Your task to perform on an android device: show emergency info Image 0: 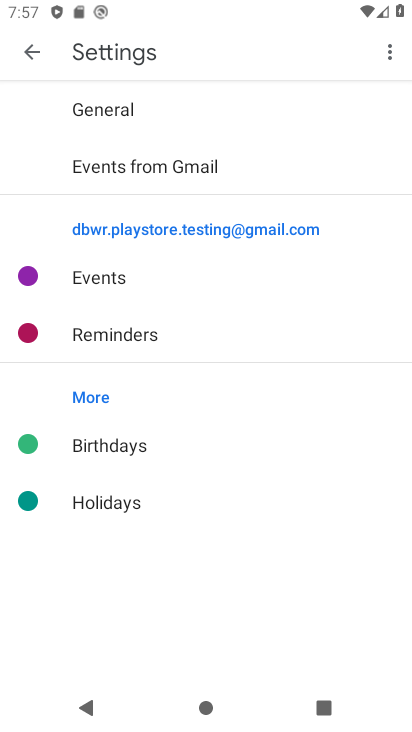
Step 0: press home button
Your task to perform on an android device: show emergency info Image 1: 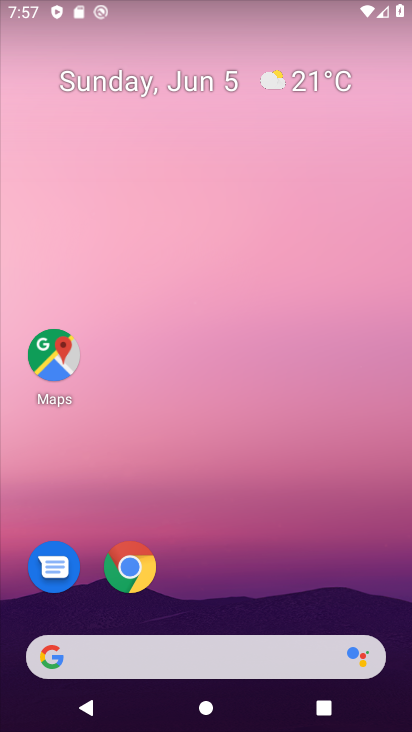
Step 1: drag from (197, 637) to (271, 137)
Your task to perform on an android device: show emergency info Image 2: 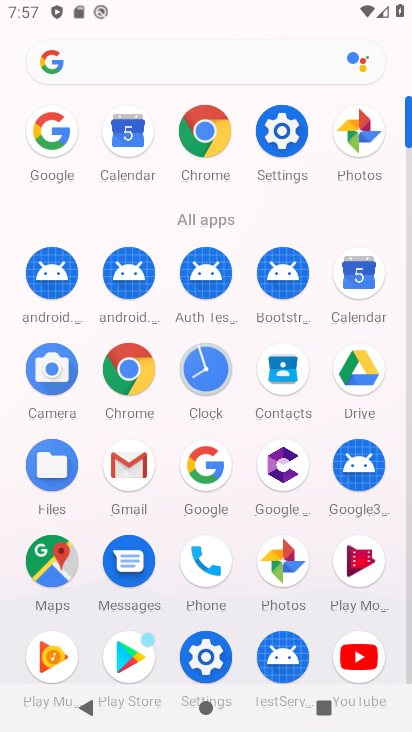
Step 2: click (279, 129)
Your task to perform on an android device: show emergency info Image 3: 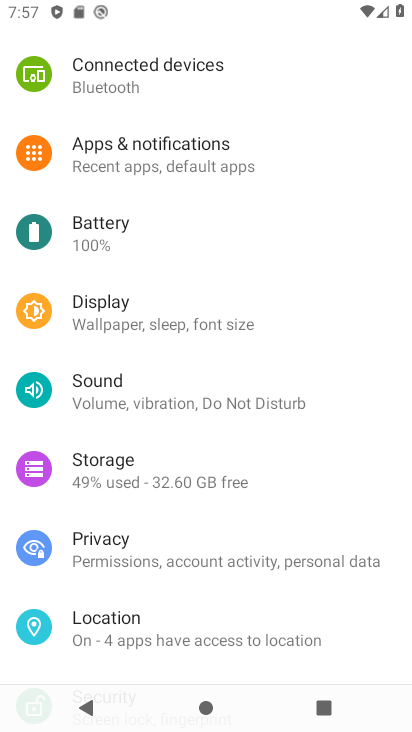
Step 3: drag from (123, 625) to (203, 43)
Your task to perform on an android device: show emergency info Image 4: 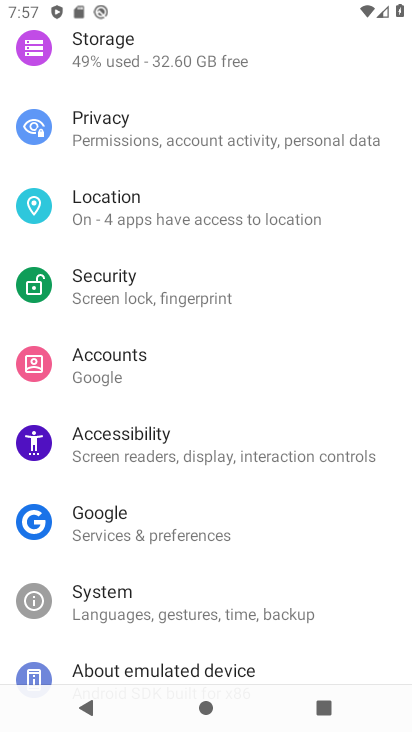
Step 4: drag from (44, 597) to (194, 98)
Your task to perform on an android device: show emergency info Image 5: 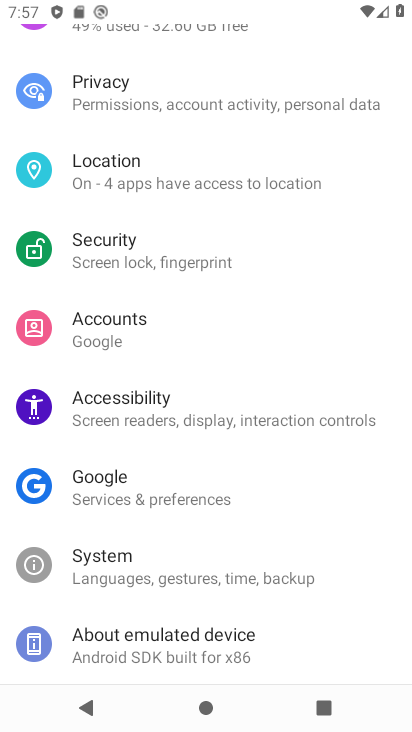
Step 5: click (132, 652)
Your task to perform on an android device: show emergency info Image 6: 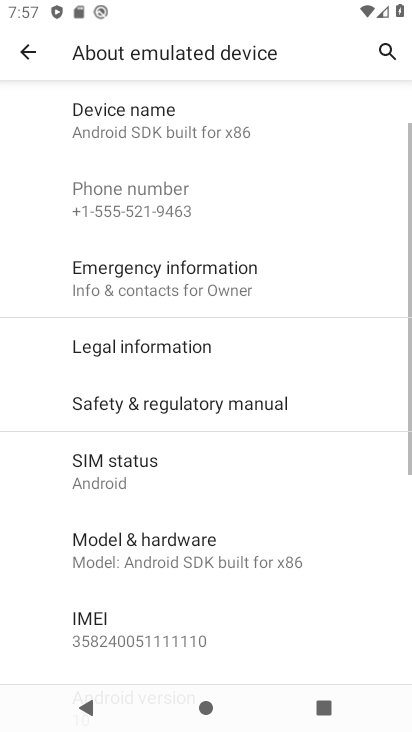
Step 6: click (183, 274)
Your task to perform on an android device: show emergency info Image 7: 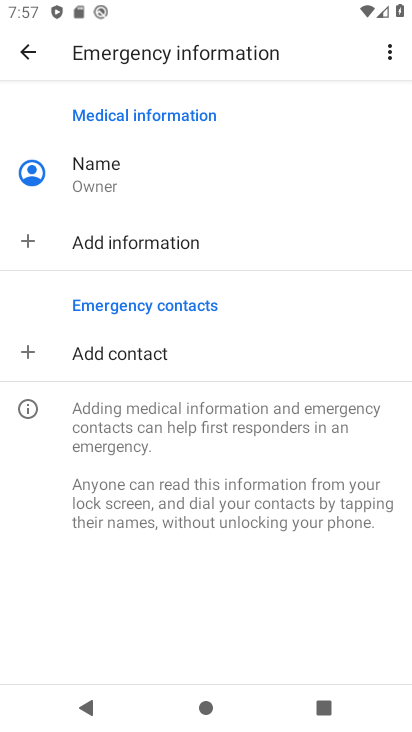
Step 7: task complete